Your task to perform on an android device: Show me popular videos on Youtube Image 0: 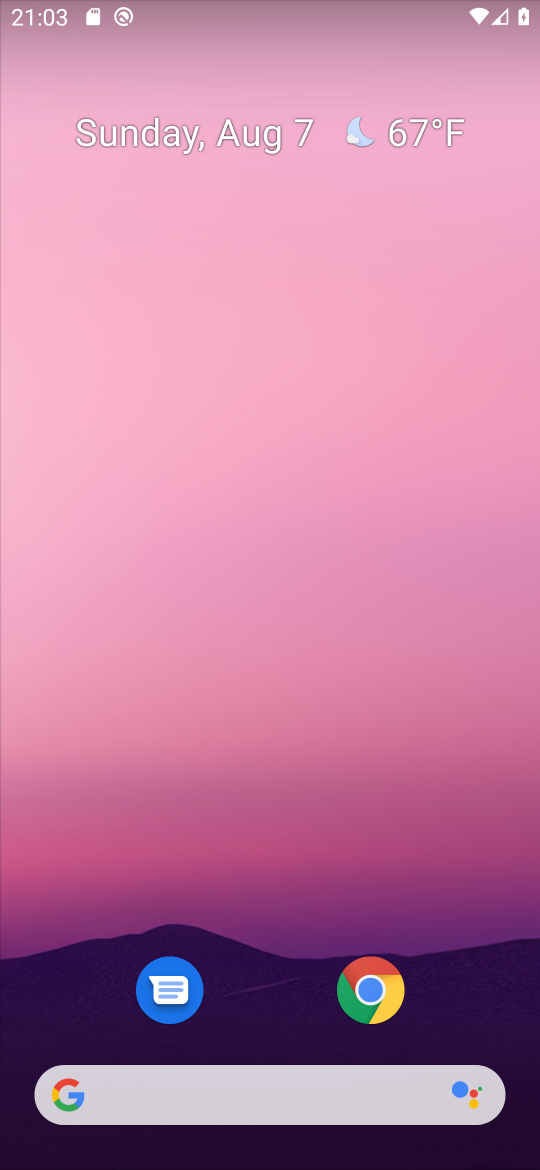
Step 0: drag from (272, 958) to (338, 0)
Your task to perform on an android device: Show me popular videos on Youtube Image 1: 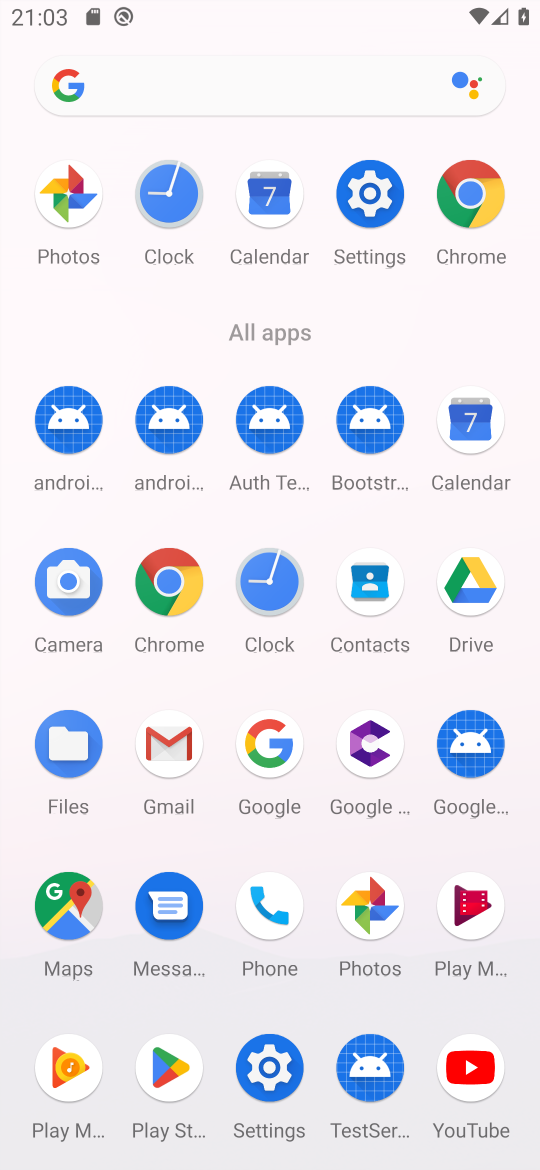
Step 1: click (468, 1070)
Your task to perform on an android device: Show me popular videos on Youtube Image 2: 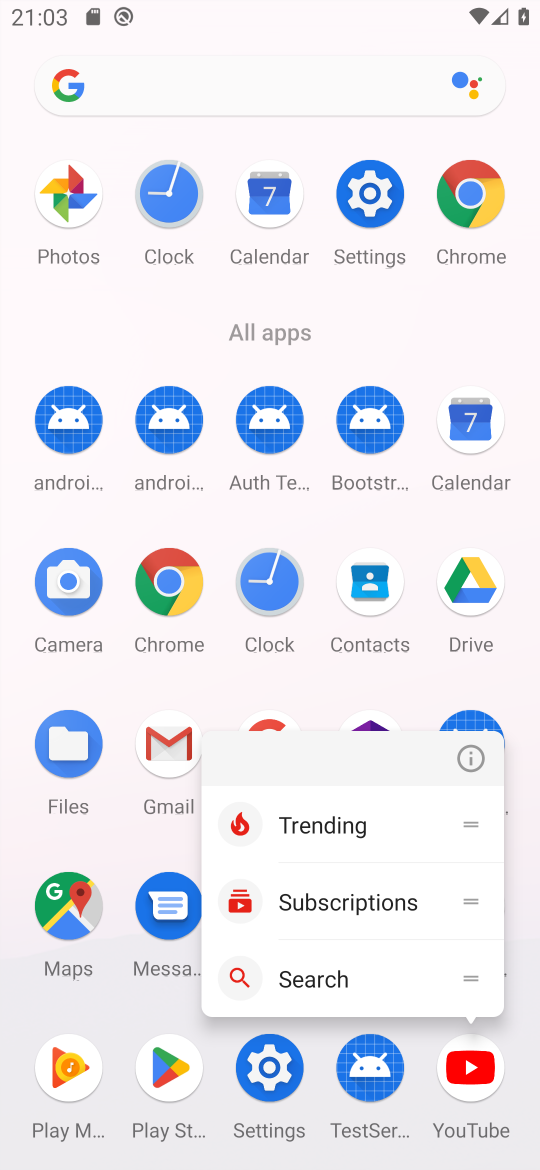
Step 2: click (471, 1066)
Your task to perform on an android device: Show me popular videos on Youtube Image 3: 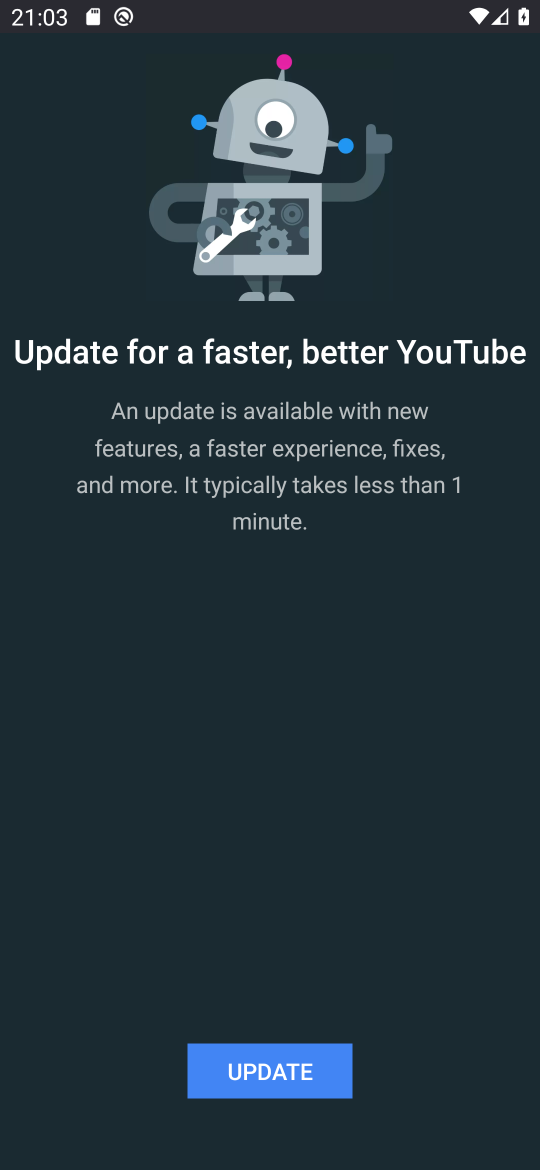
Step 3: click (338, 1077)
Your task to perform on an android device: Show me popular videos on Youtube Image 4: 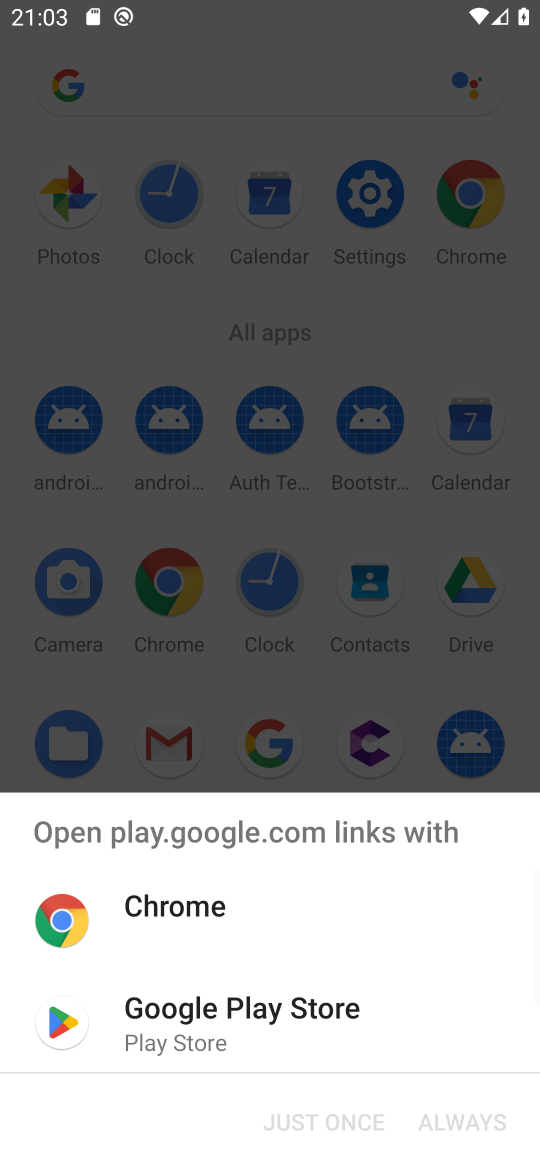
Step 4: click (220, 996)
Your task to perform on an android device: Show me popular videos on Youtube Image 5: 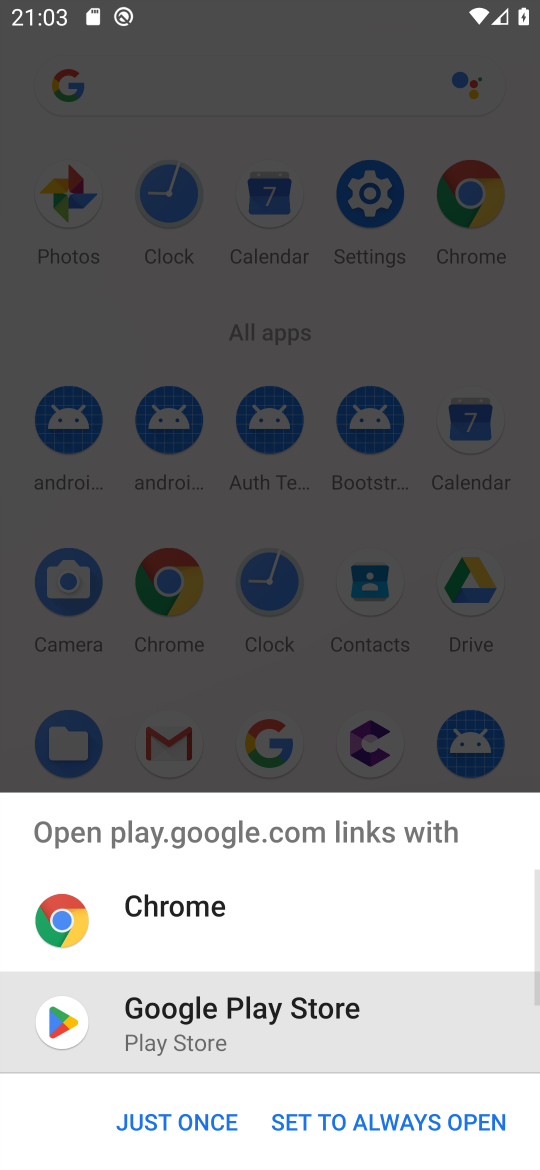
Step 5: click (196, 1116)
Your task to perform on an android device: Show me popular videos on Youtube Image 6: 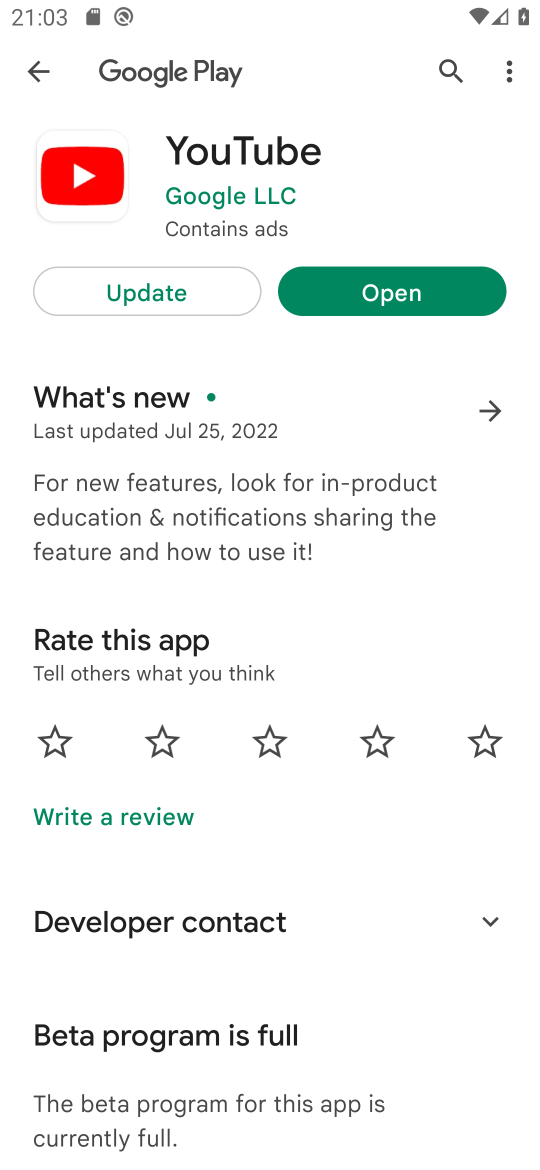
Step 6: click (134, 288)
Your task to perform on an android device: Show me popular videos on Youtube Image 7: 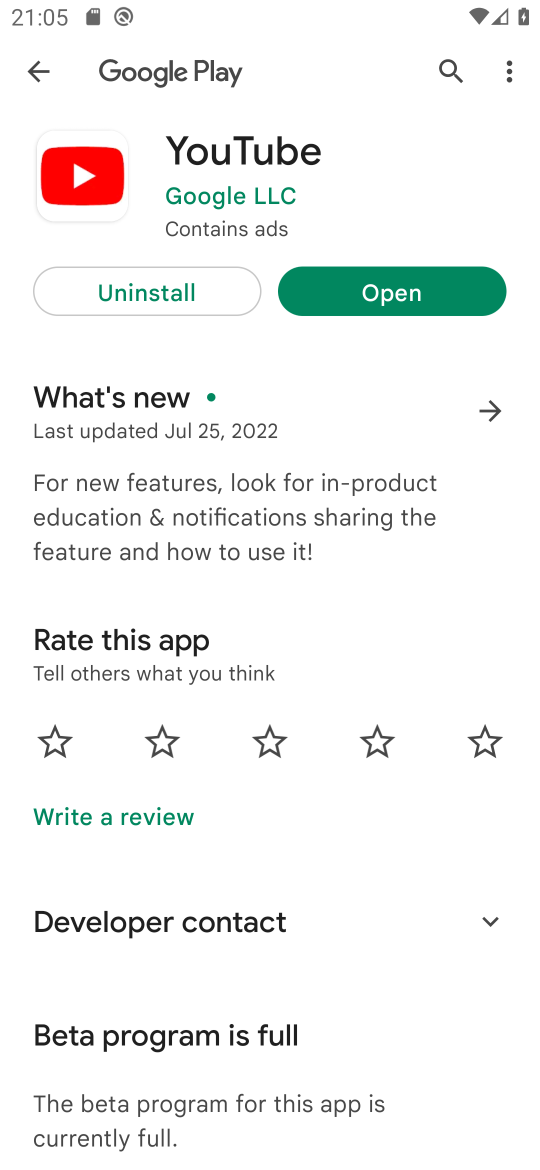
Step 7: click (383, 284)
Your task to perform on an android device: Show me popular videos on Youtube Image 8: 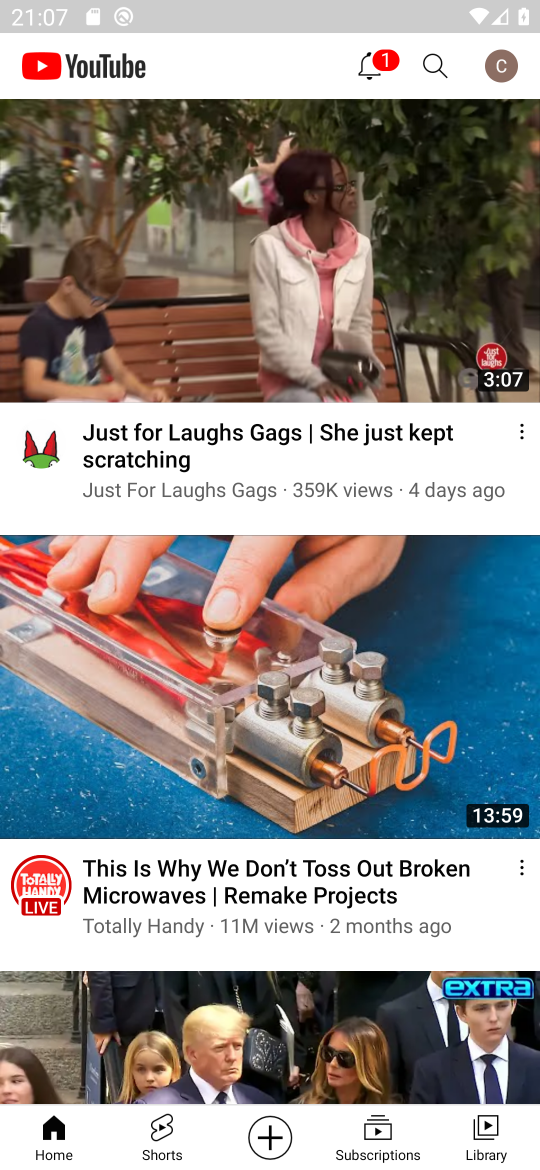
Step 8: task complete